Your task to perform on an android device: remove spam from my inbox in the gmail app Image 0: 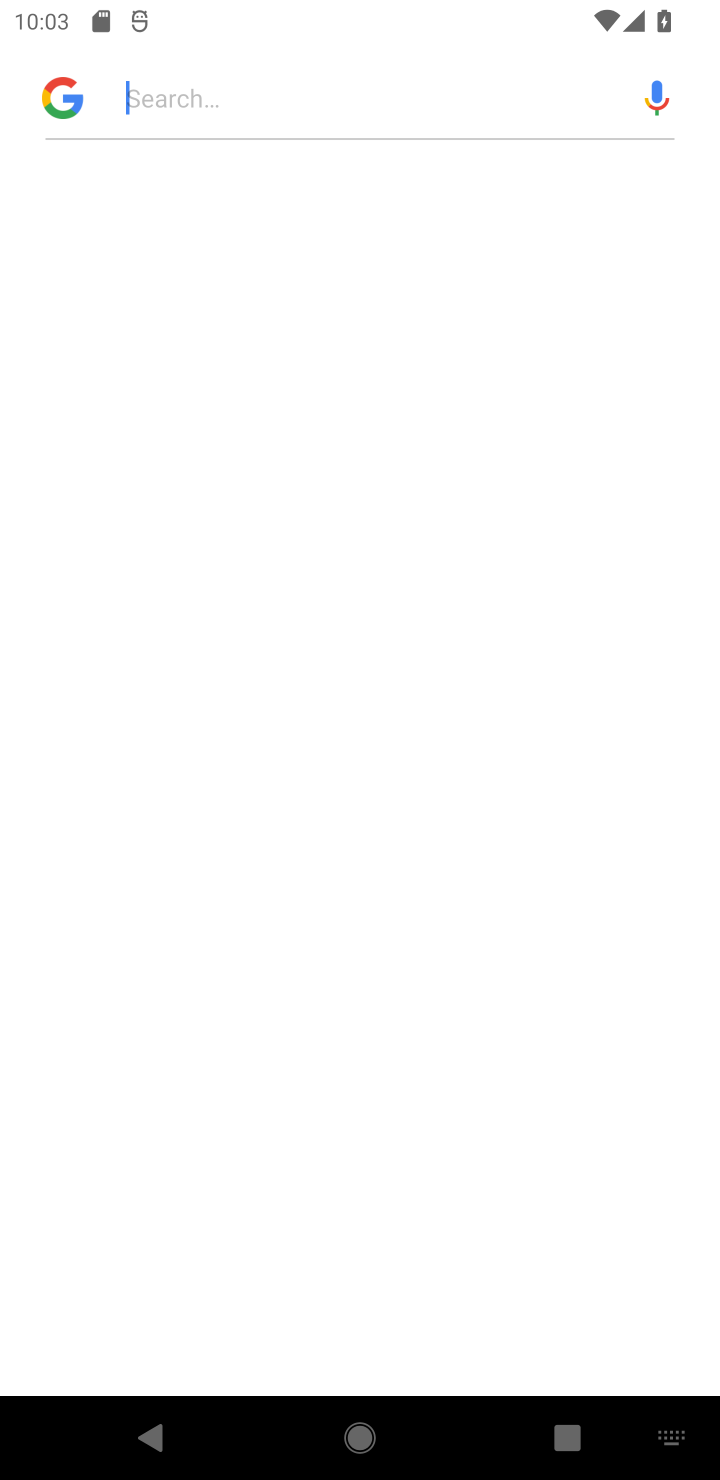
Step 0: press home button
Your task to perform on an android device: remove spam from my inbox in the gmail app Image 1: 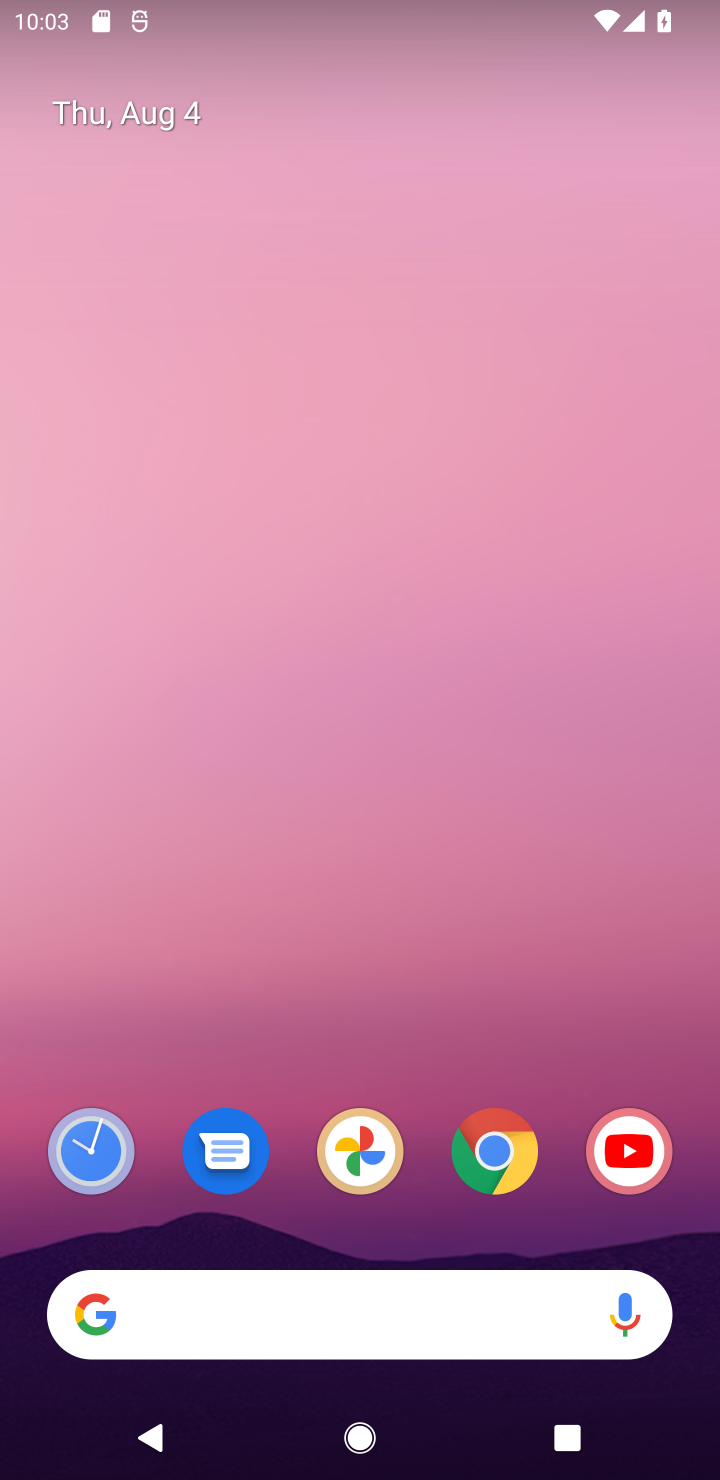
Step 1: drag from (435, 1262) to (416, 367)
Your task to perform on an android device: remove spam from my inbox in the gmail app Image 2: 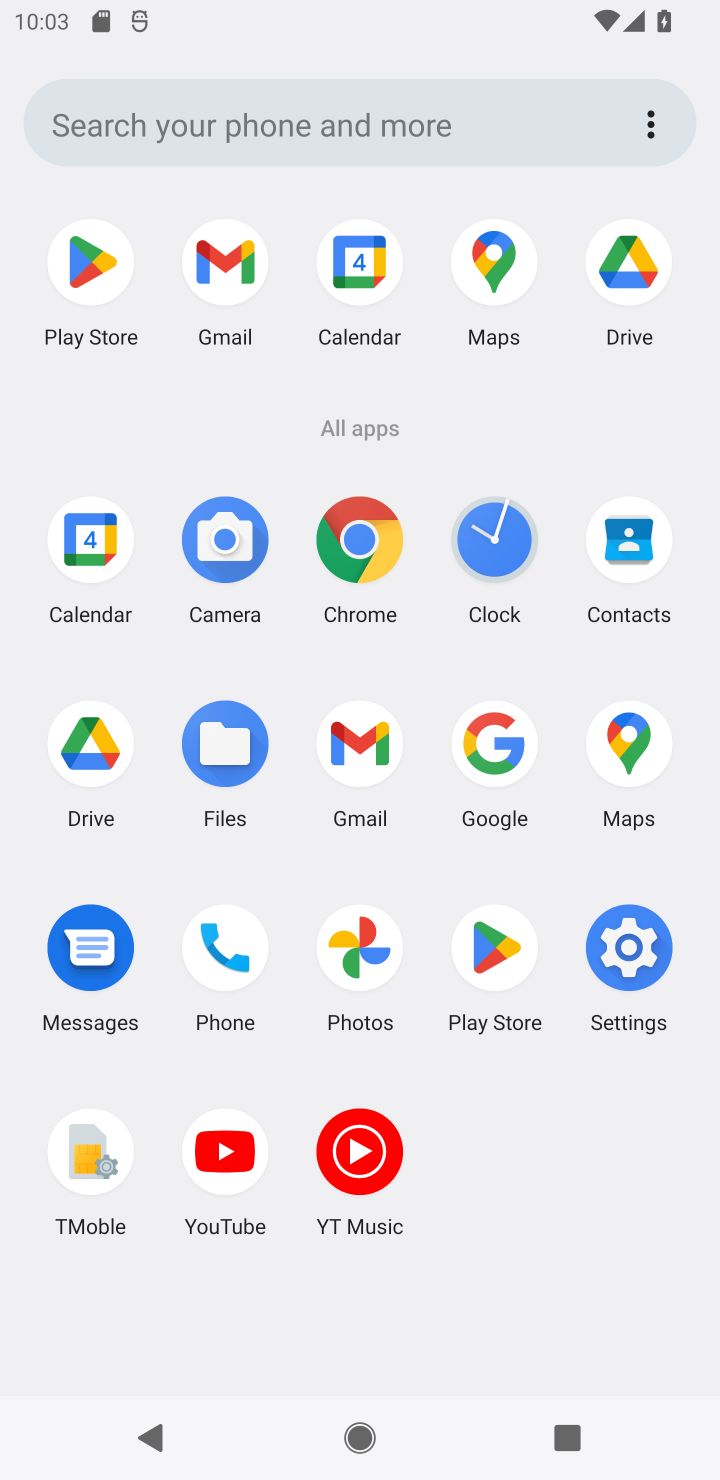
Step 2: click (213, 270)
Your task to perform on an android device: remove spam from my inbox in the gmail app Image 3: 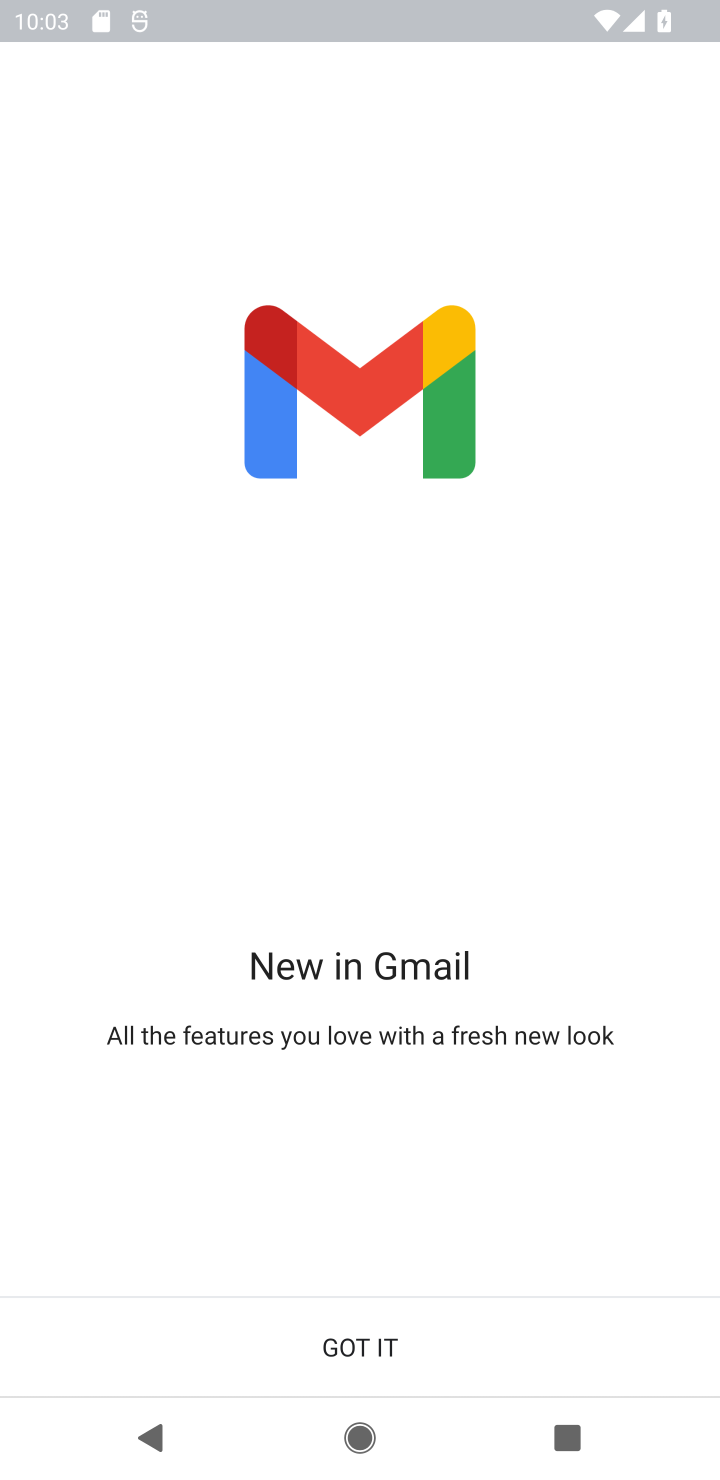
Step 3: click (366, 1363)
Your task to perform on an android device: remove spam from my inbox in the gmail app Image 4: 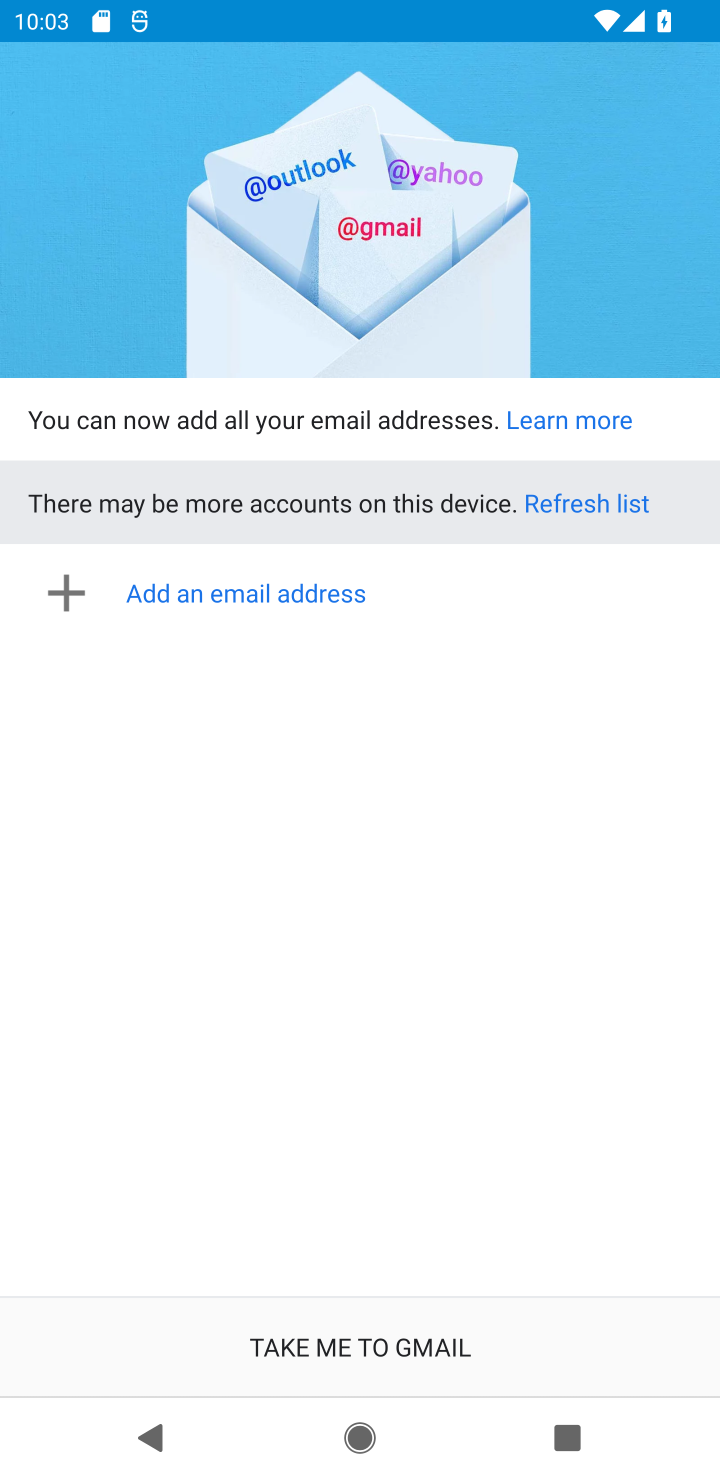
Step 4: click (397, 1343)
Your task to perform on an android device: remove spam from my inbox in the gmail app Image 5: 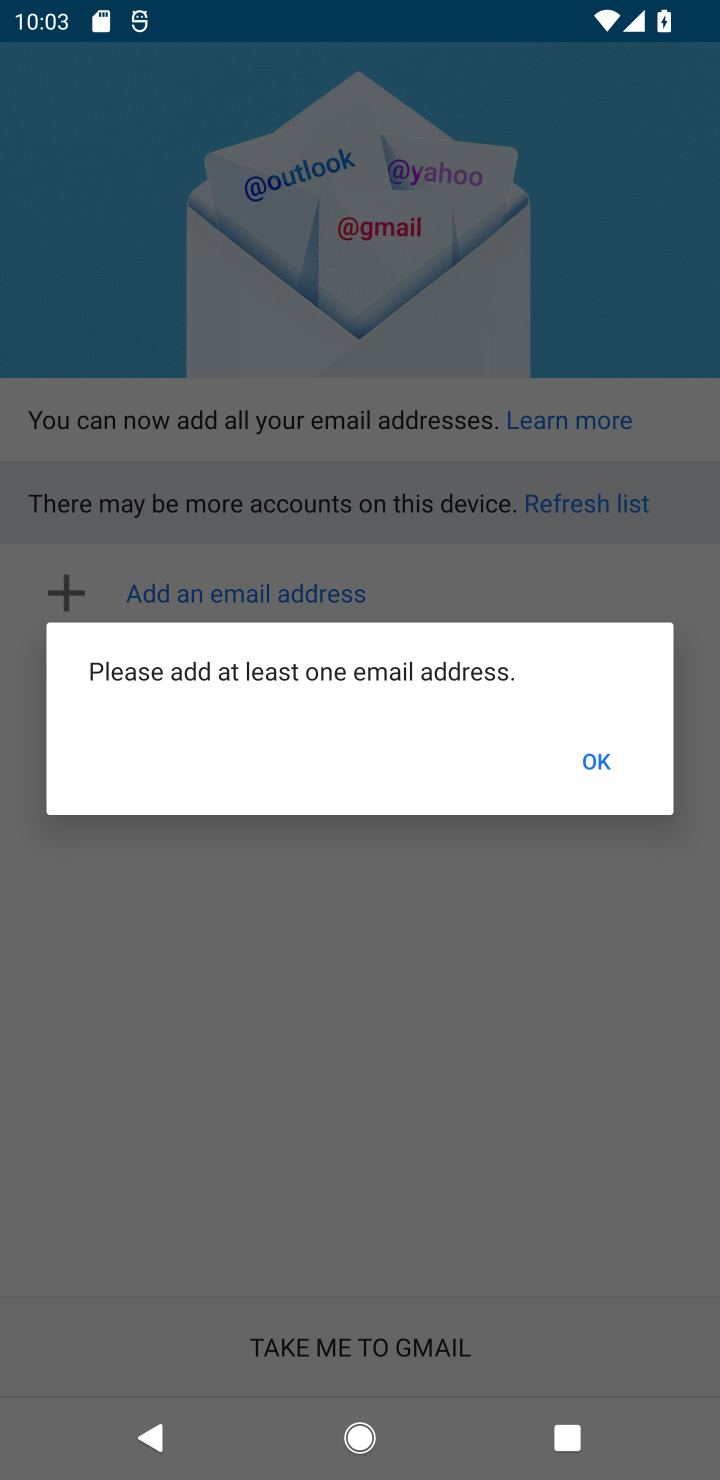
Step 5: click (595, 759)
Your task to perform on an android device: remove spam from my inbox in the gmail app Image 6: 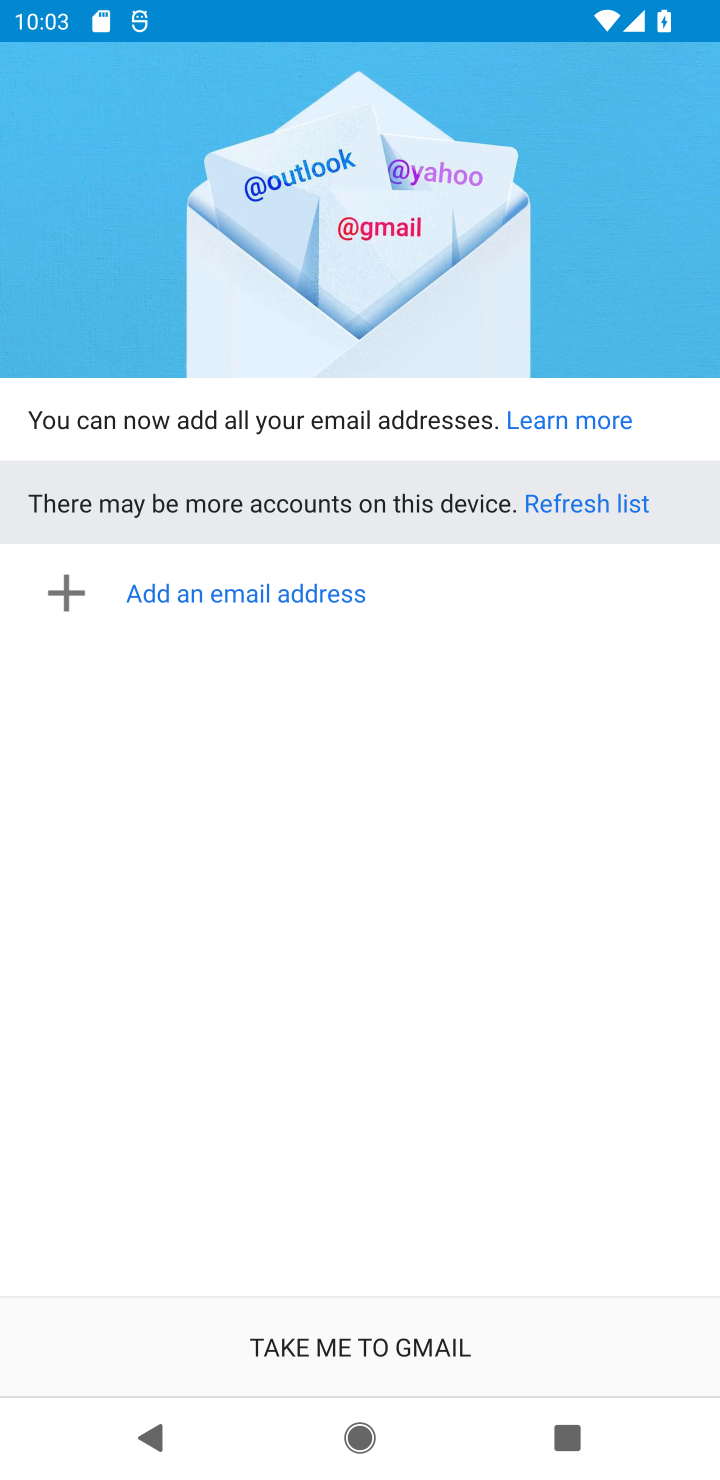
Step 6: click (346, 1351)
Your task to perform on an android device: remove spam from my inbox in the gmail app Image 7: 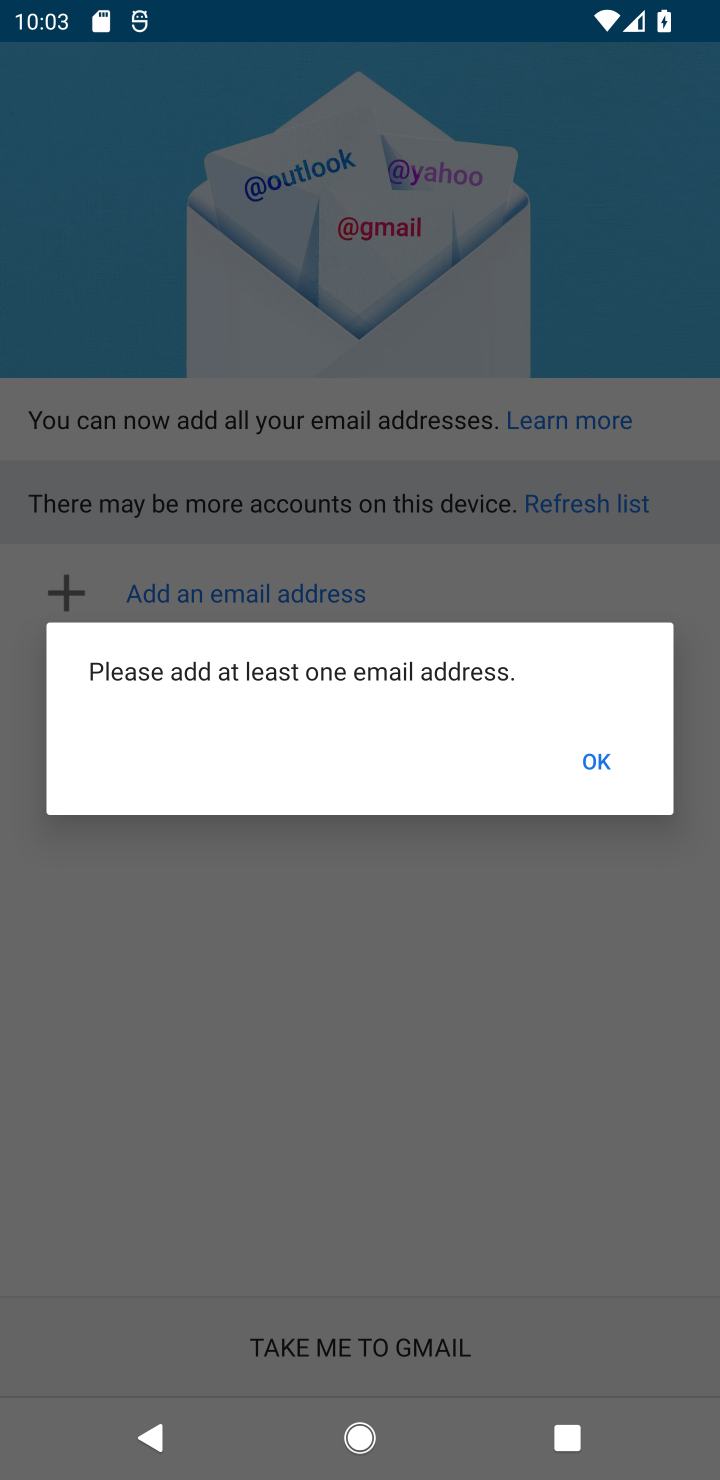
Step 7: click (616, 760)
Your task to perform on an android device: remove spam from my inbox in the gmail app Image 8: 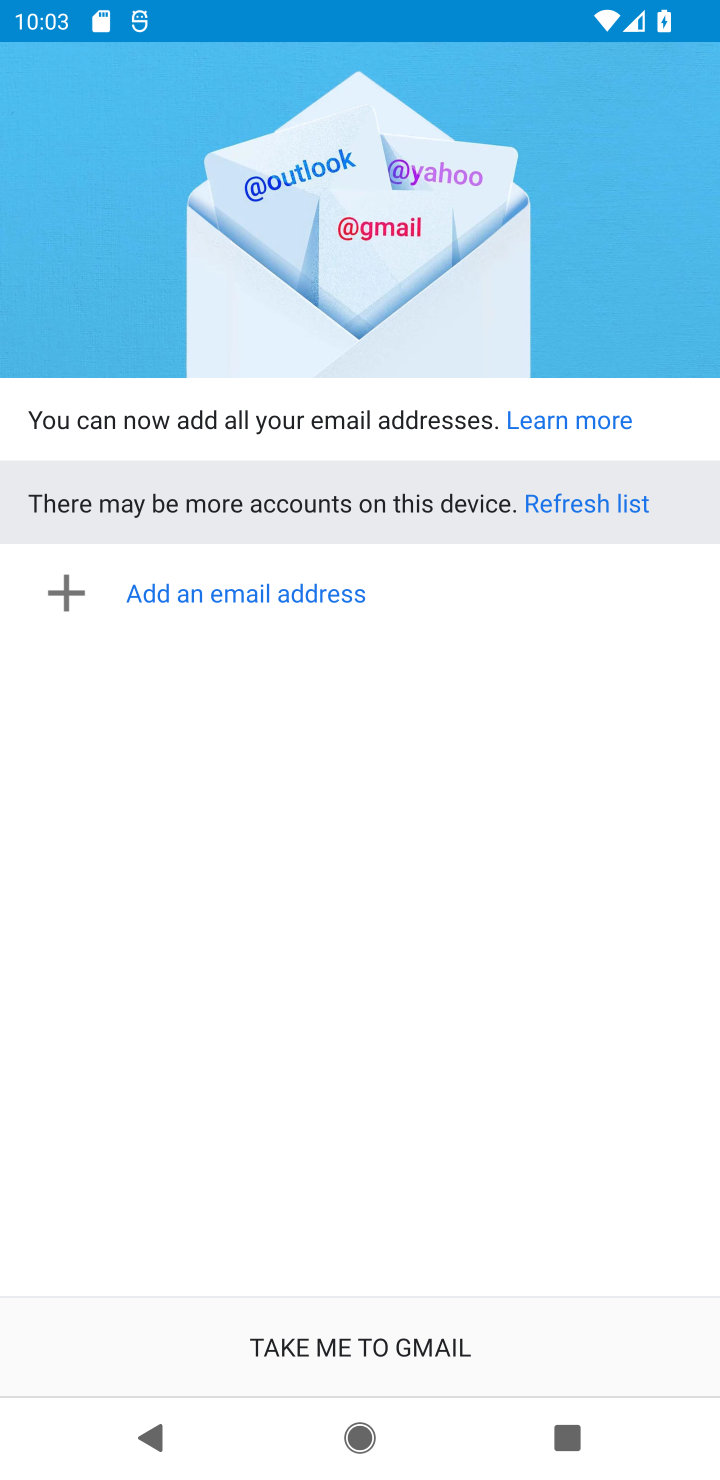
Step 8: click (572, 506)
Your task to perform on an android device: remove spam from my inbox in the gmail app Image 9: 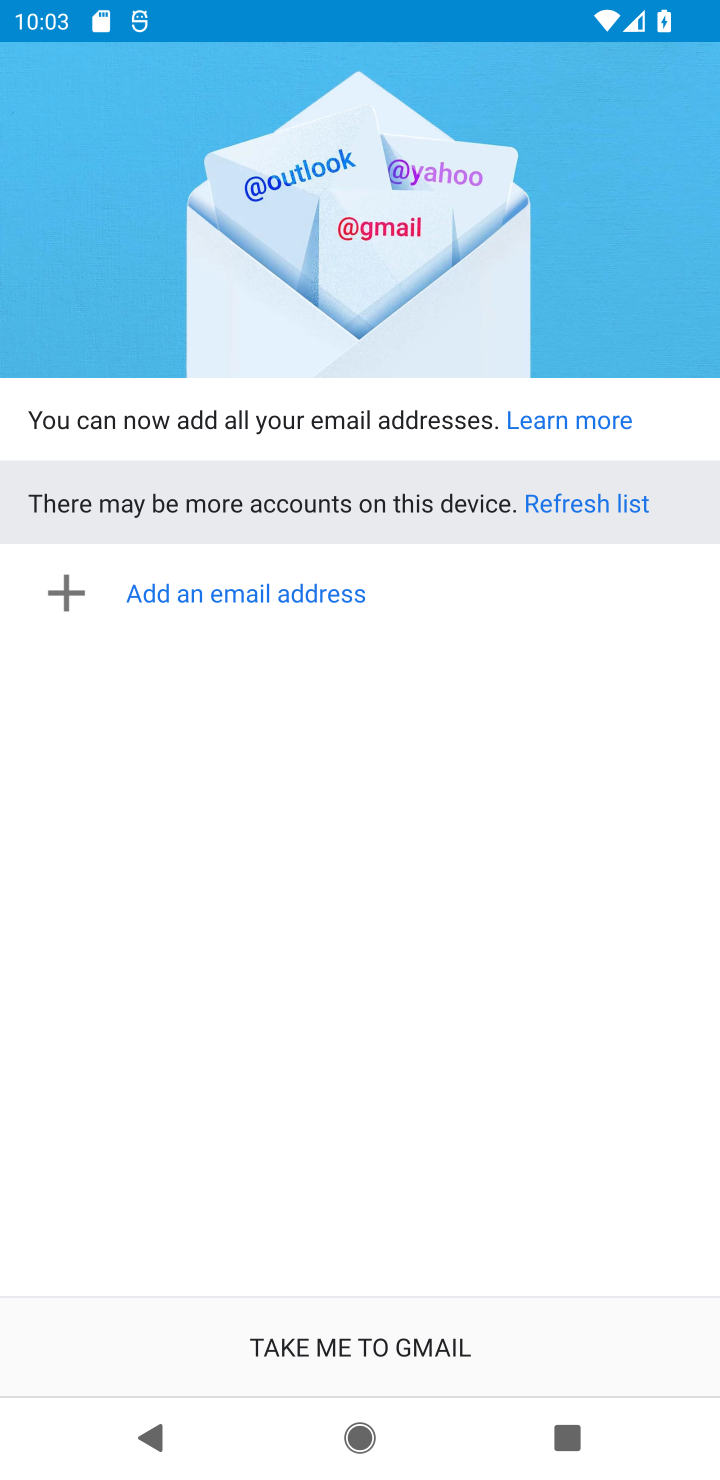
Step 9: click (330, 1356)
Your task to perform on an android device: remove spam from my inbox in the gmail app Image 10: 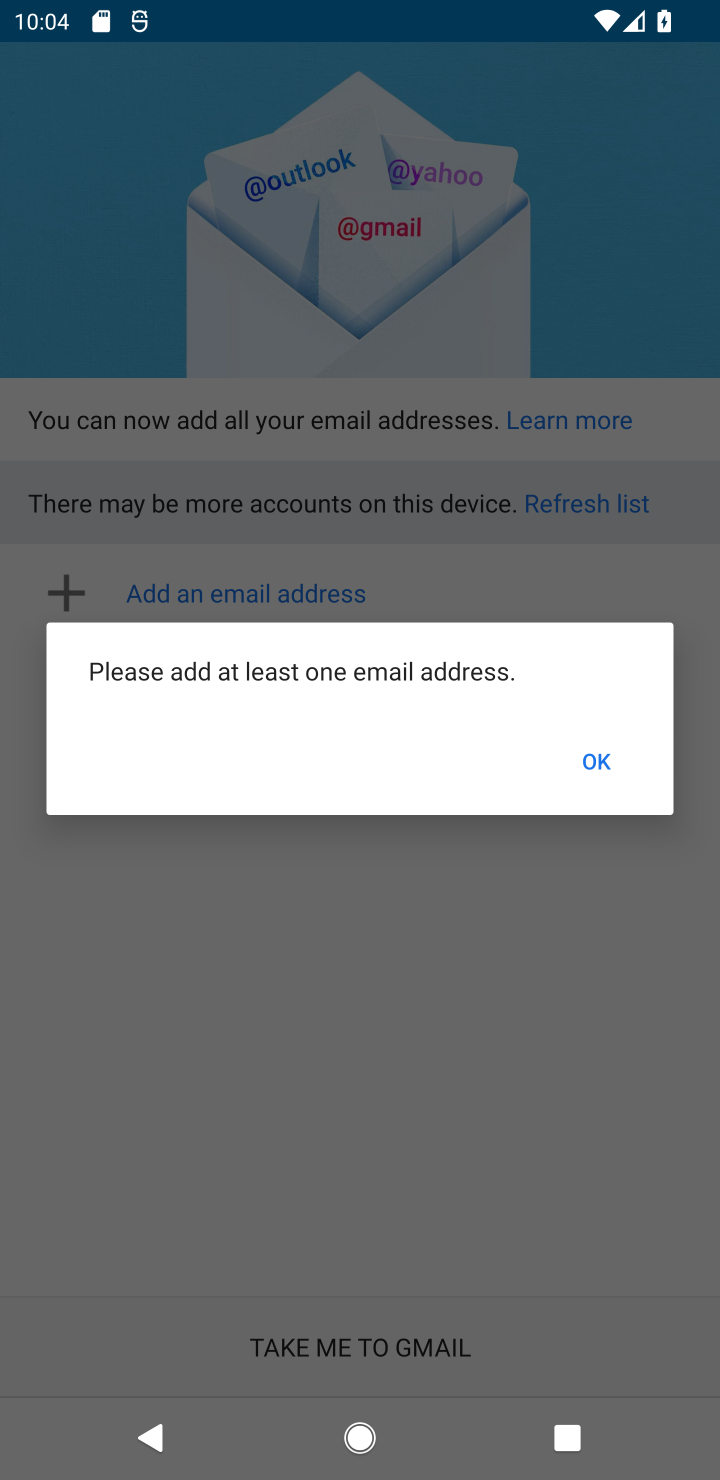
Step 10: click (615, 758)
Your task to perform on an android device: remove spam from my inbox in the gmail app Image 11: 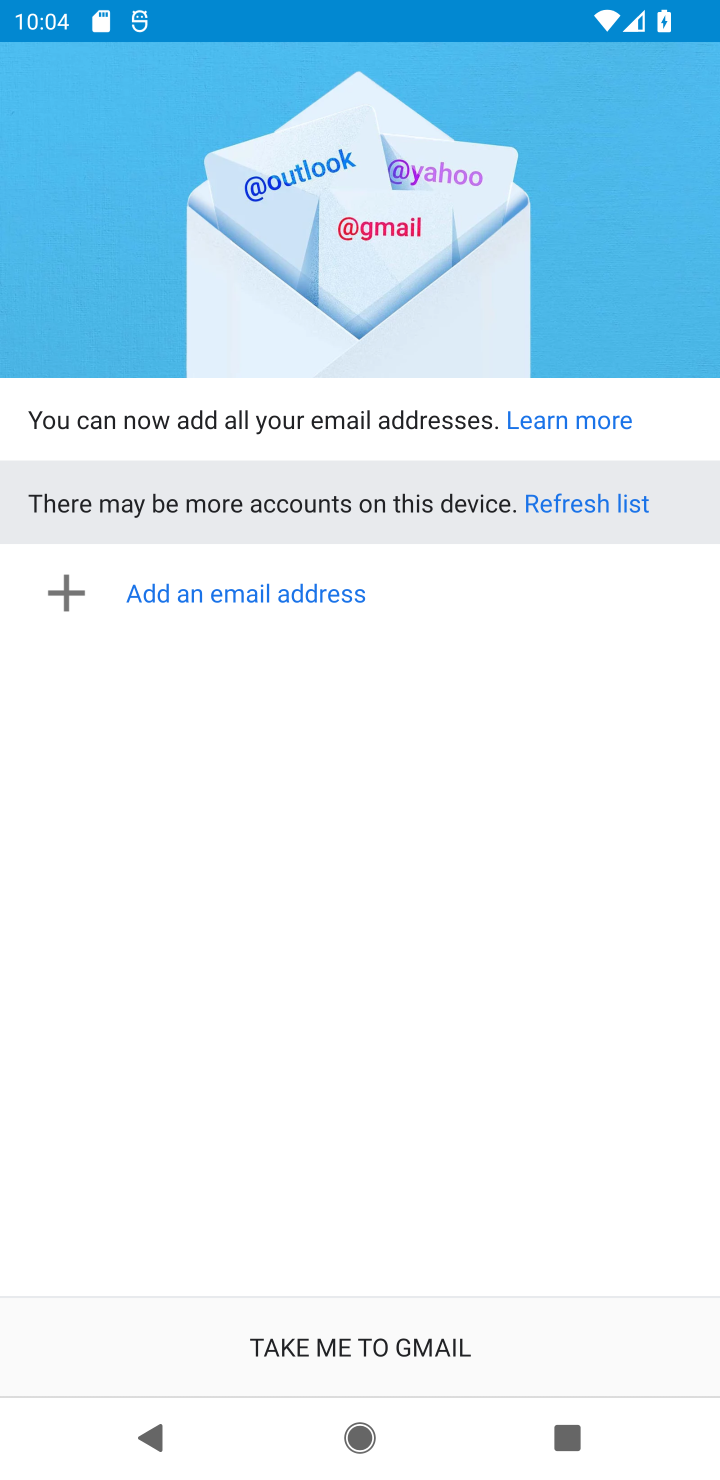
Step 11: task complete